Your task to perform on an android device: manage bookmarks in the chrome app Image 0: 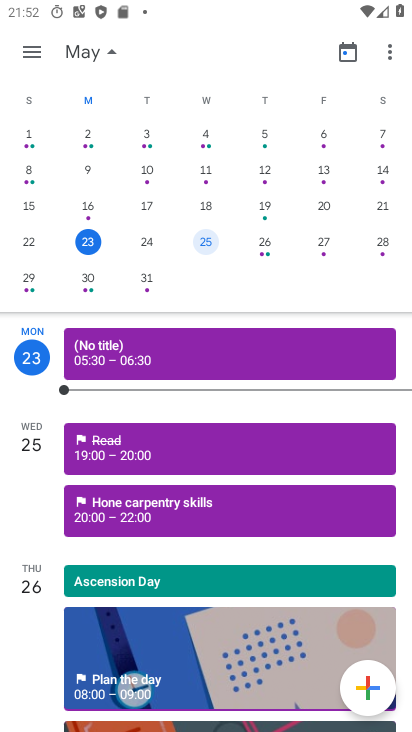
Step 0: press home button
Your task to perform on an android device: manage bookmarks in the chrome app Image 1: 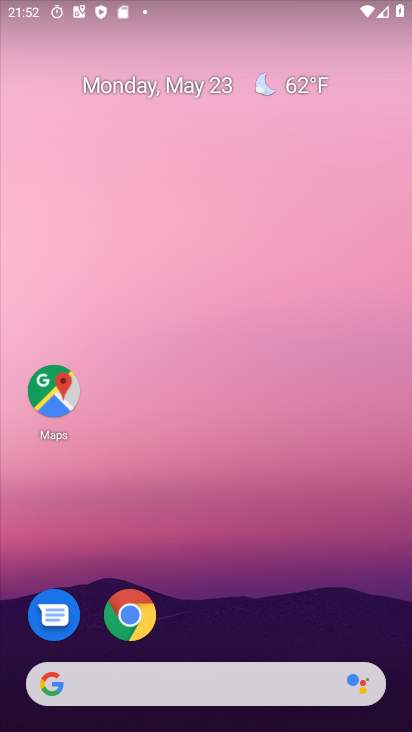
Step 1: click (145, 618)
Your task to perform on an android device: manage bookmarks in the chrome app Image 2: 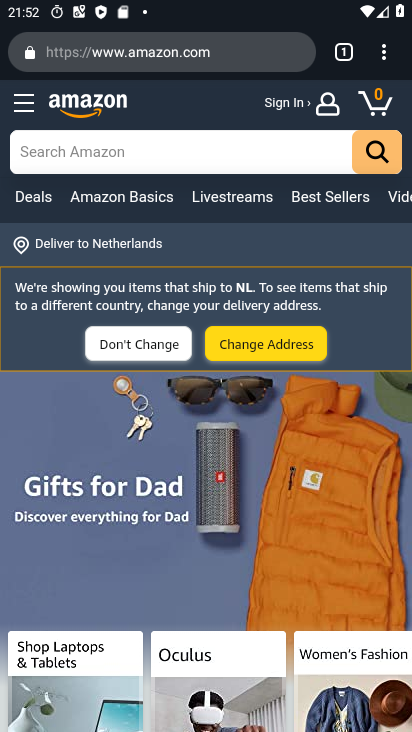
Step 2: click (377, 52)
Your task to perform on an android device: manage bookmarks in the chrome app Image 3: 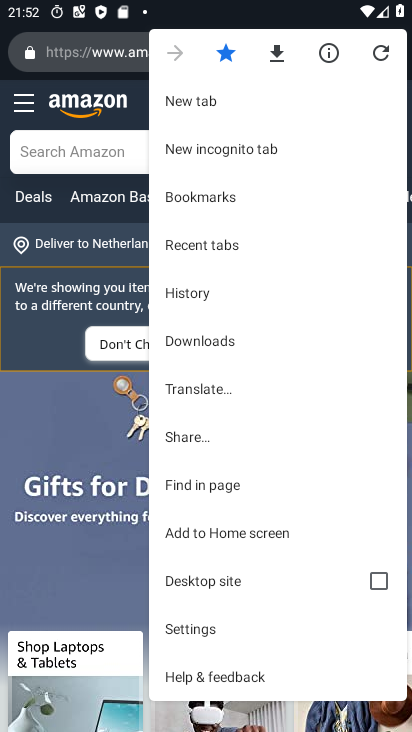
Step 3: click (194, 202)
Your task to perform on an android device: manage bookmarks in the chrome app Image 4: 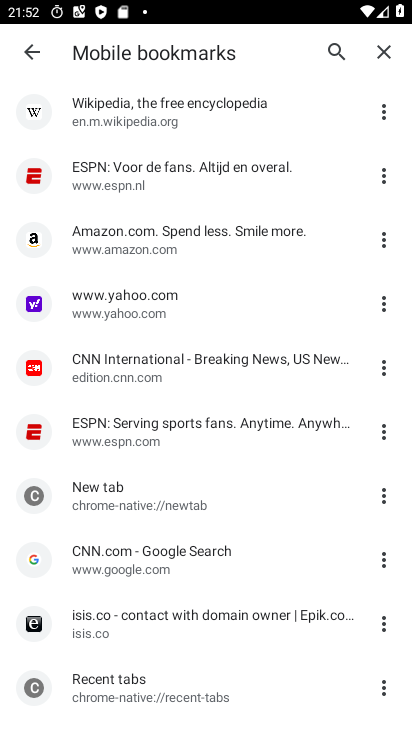
Step 4: click (376, 178)
Your task to perform on an android device: manage bookmarks in the chrome app Image 5: 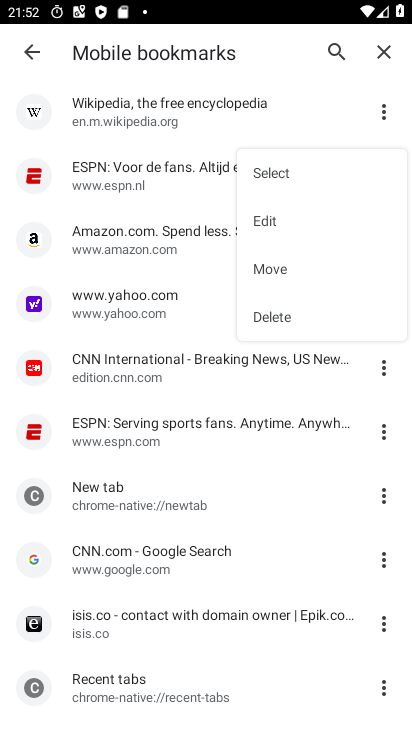
Step 5: click (271, 321)
Your task to perform on an android device: manage bookmarks in the chrome app Image 6: 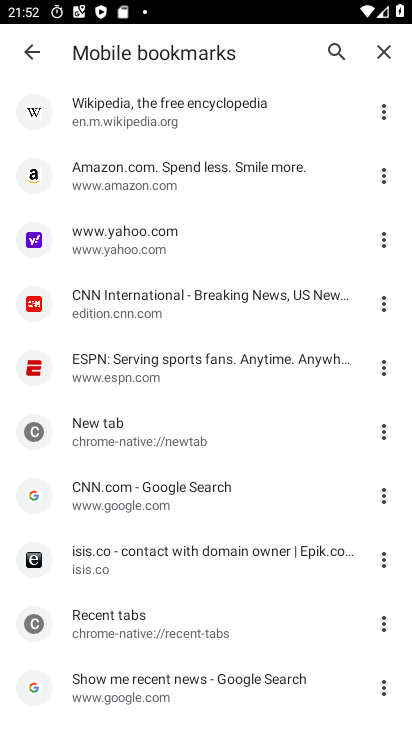
Step 6: task complete